Your task to perform on an android device: turn on wifi Image 0: 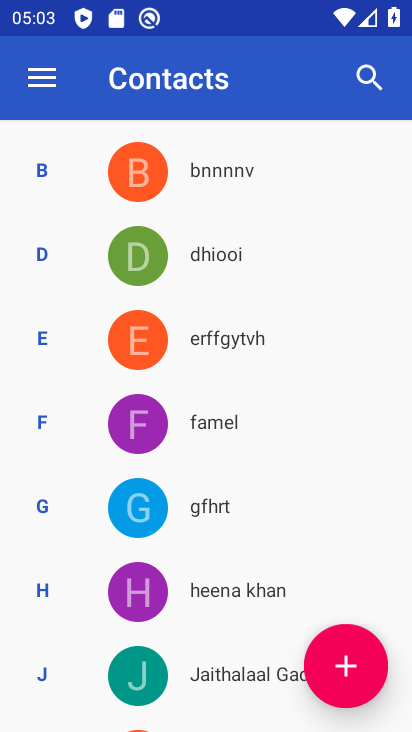
Step 0: press back button
Your task to perform on an android device: turn on wifi Image 1: 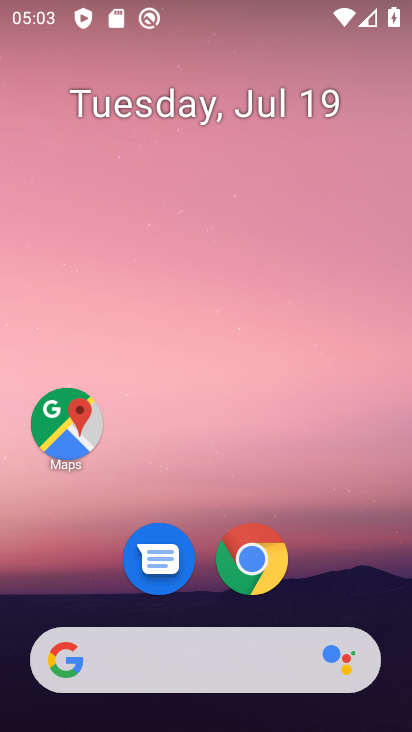
Step 1: task complete